Your task to perform on an android device: turn off data saver in the chrome app Image 0: 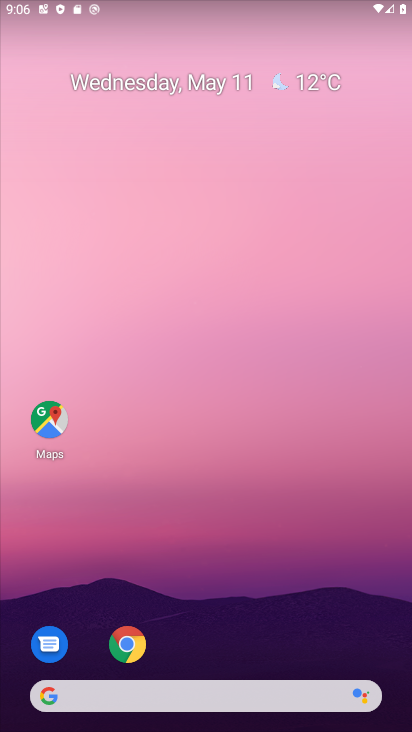
Step 0: click (139, 645)
Your task to perform on an android device: turn off data saver in the chrome app Image 1: 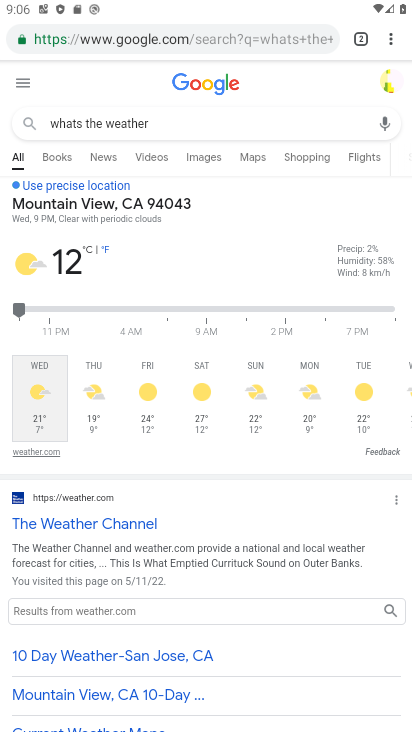
Step 1: click (391, 36)
Your task to perform on an android device: turn off data saver in the chrome app Image 2: 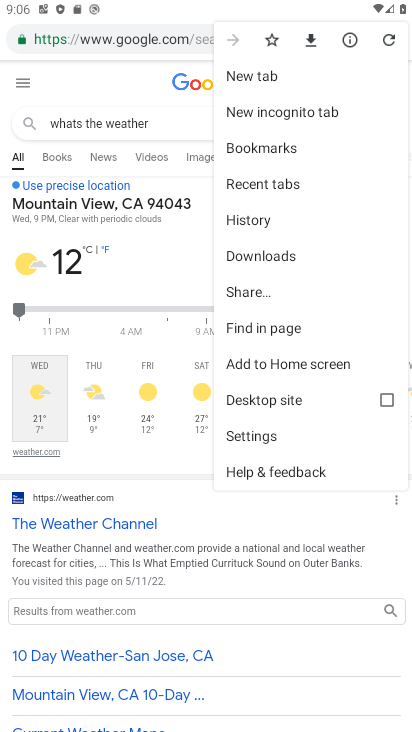
Step 2: click (256, 438)
Your task to perform on an android device: turn off data saver in the chrome app Image 3: 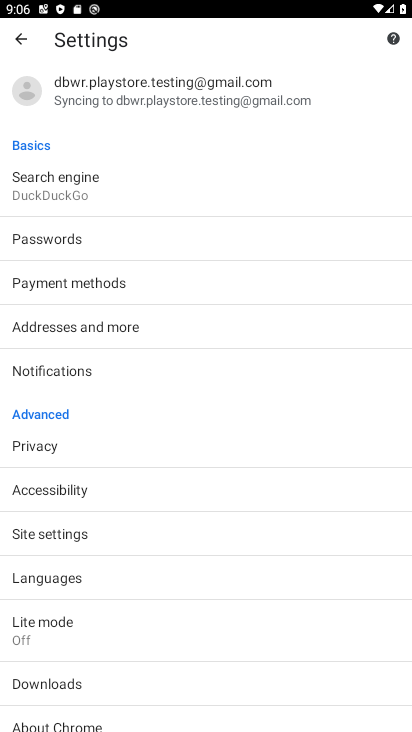
Step 3: click (26, 640)
Your task to perform on an android device: turn off data saver in the chrome app Image 4: 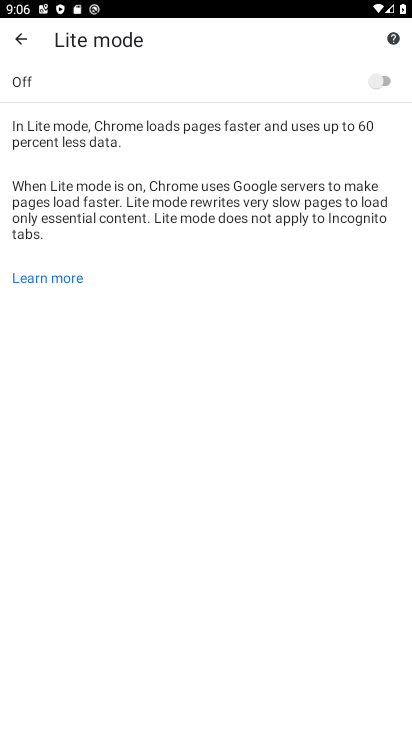
Step 4: task complete